Your task to perform on an android device: visit the assistant section in the google photos Image 0: 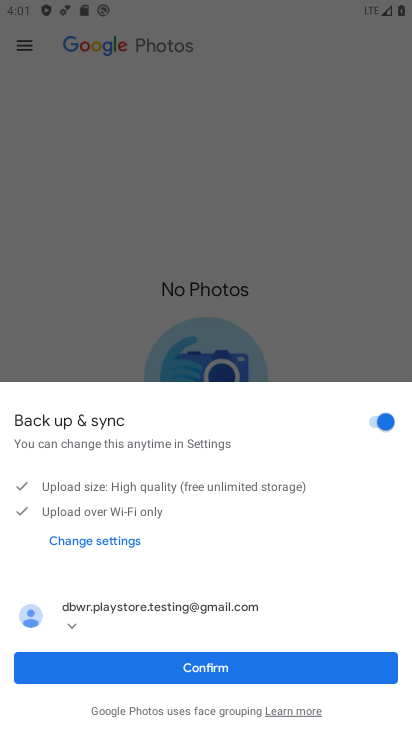
Step 0: press home button
Your task to perform on an android device: visit the assistant section in the google photos Image 1: 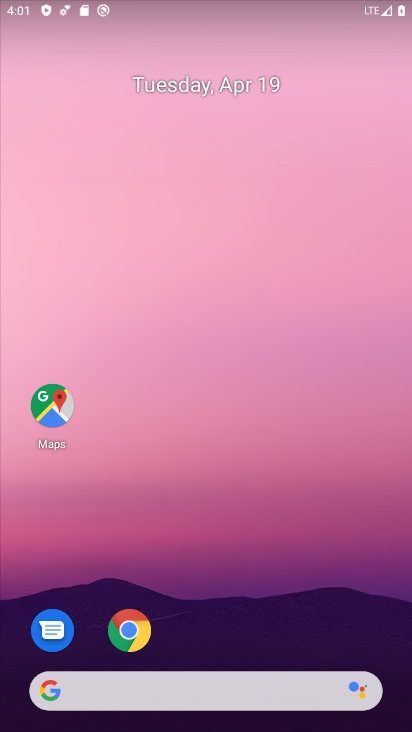
Step 1: drag from (221, 640) to (208, 242)
Your task to perform on an android device: visit the assistant section in the google photos Image 2: 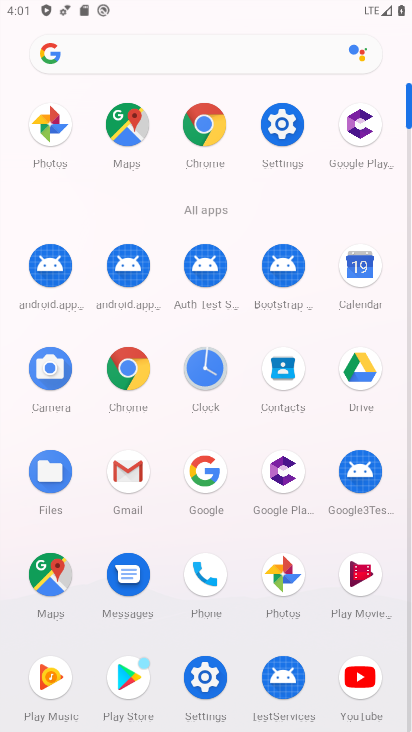
Step 2: click (275, 570)
Your task to perform on an android device: visit the assistant section in the google photos Image 3: 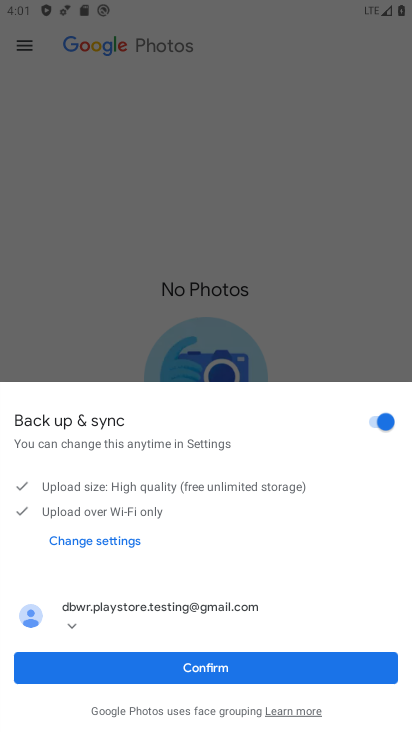
Step 3: click (281, 664)
Your task to perform on an android device: visit the assistant section in the google photos Image 4: 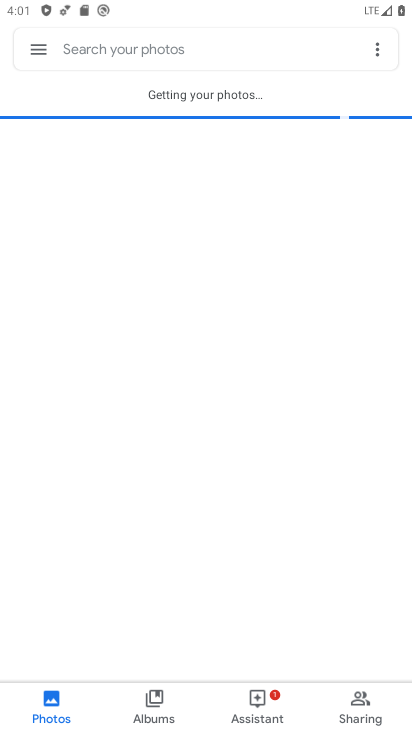
Step 4: click (265, 691)
Your task to perform on an android device: visit the assistant section in the google photos Image 5: 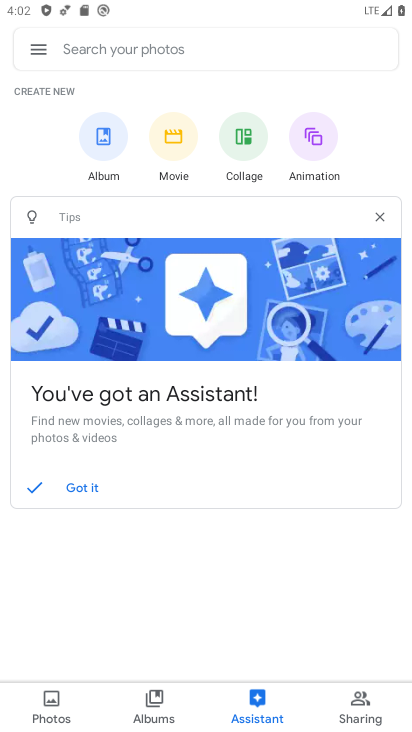
Step 5: task complete